Your task to perform on an android device: toggle translation in the chrome app Image 0: 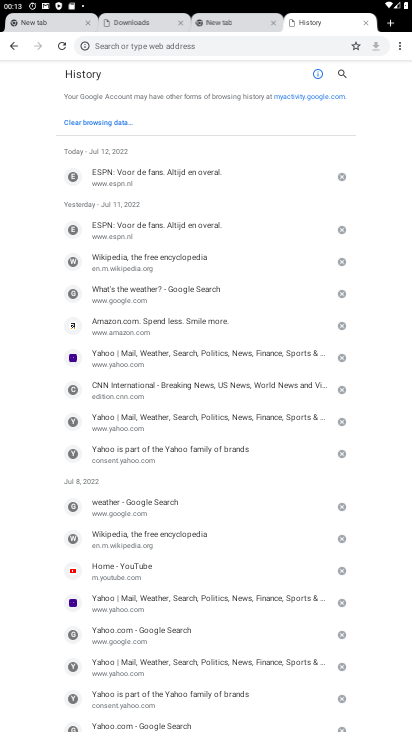
Step 0: press home button
Your task to perform on an android device: toggle translation in the chrome app Image 1: 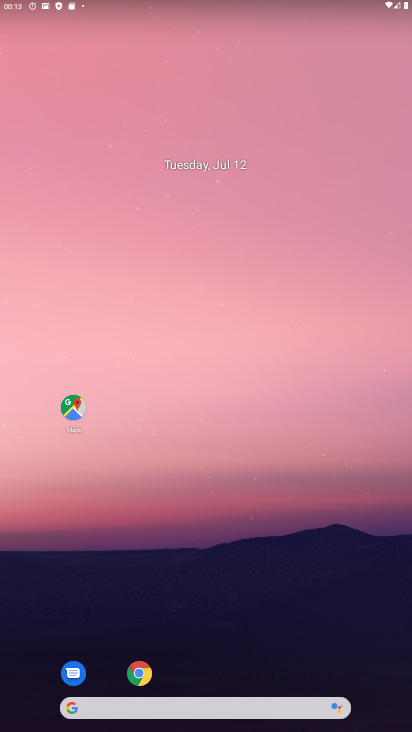
Step 1: drag from (247, 651) to (207, 163)
Your task to perform on an android device: toggle translation in the chrome app Image 2: 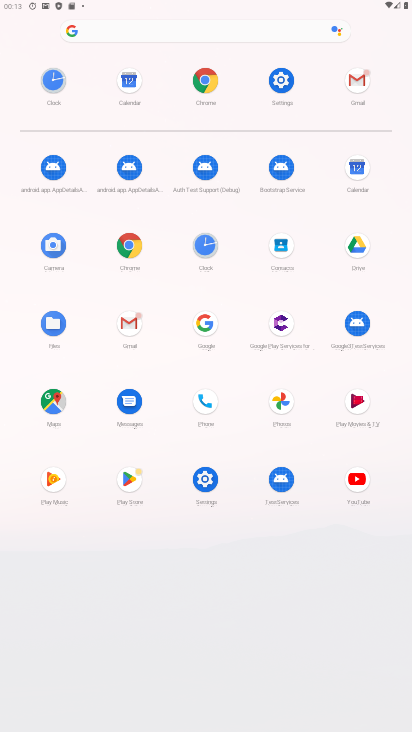
Step 2: click (201, 84)
Your task to perform on an android device: toggle translation in the chrome app Image 3: 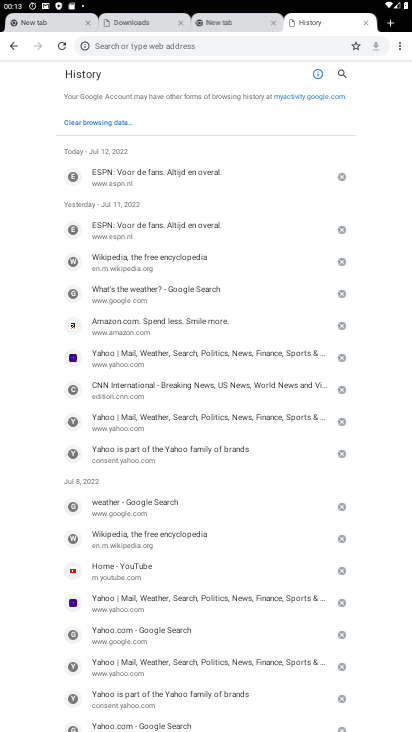
Step 3: drag from (394, 44) to (289, 211)
Your task to perform on an android device: toggle translation in the chrome app Image 4: 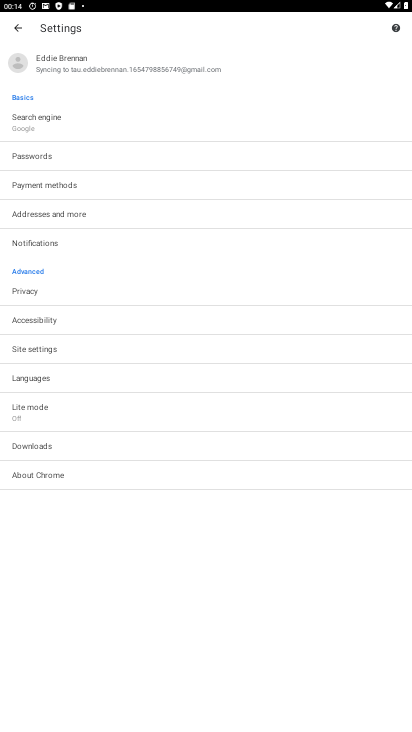
Step 4: click (29, 378)
Your task to perform on an android device: toggle translation in the chrome app Image 5: 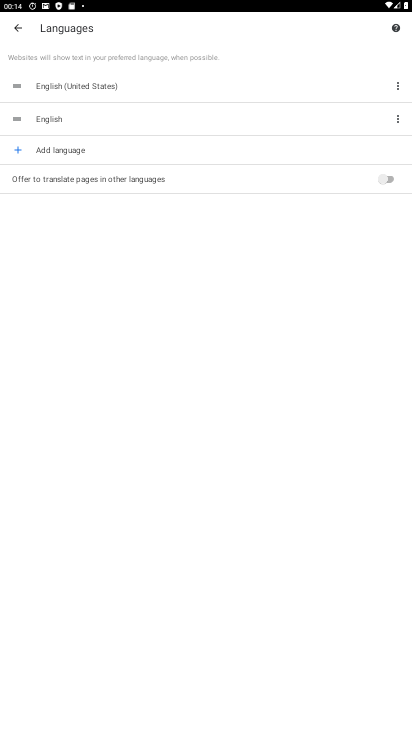
Step 5: click (386, 176)
Your task to perform on an android device: toggle translation in the chrome app Image 6: 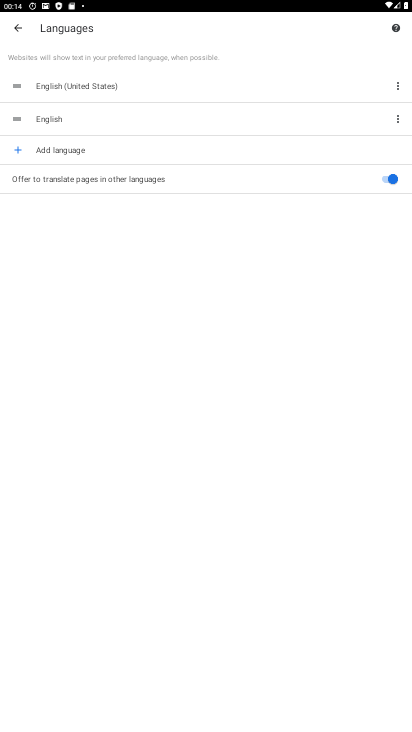
Step 6: task complete